Your task to perform on an android device: manage bookmarks in the chrome app Image 0: 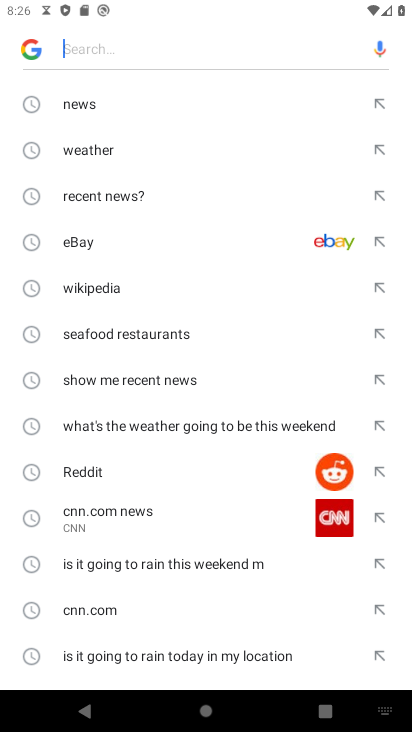
Step 0: press home button
Your task to perform on an android device: manage bookmarks in the chrome app Image 1: 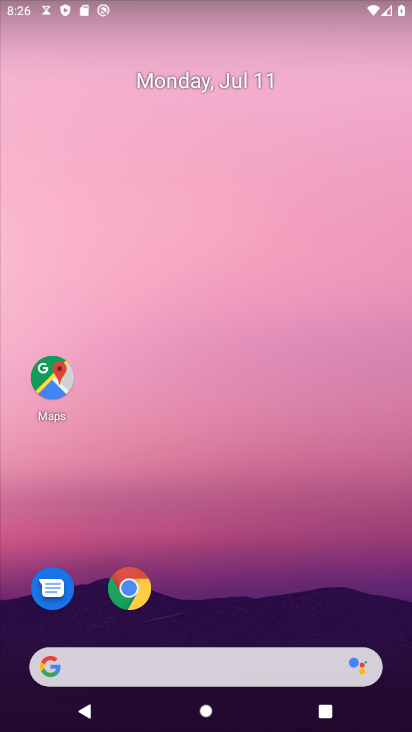
Step 1: click (138, 592)
Your task to perform on an android device: manage bookmarks in the chrome app Image 2: 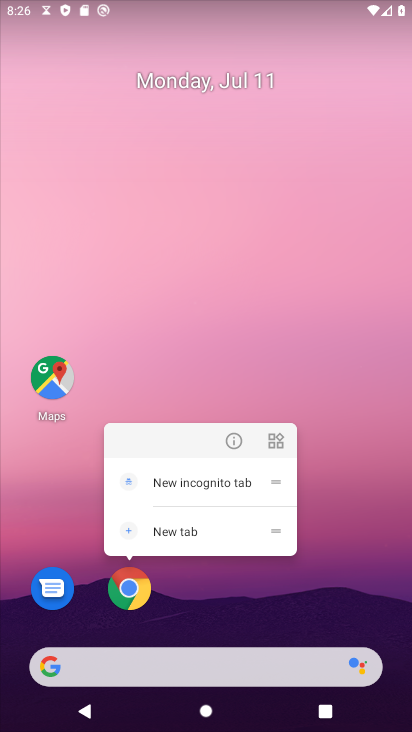
Step 2: click (138, 592)
Your task to perform on an android device: manage bookmarks in the chrome app Image 3: 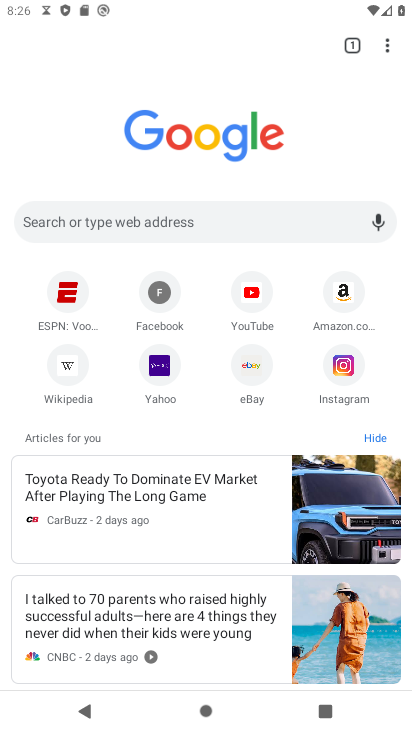
Step 3: task complete